Your task to perform on an android device: Open wifi settings Image 0: 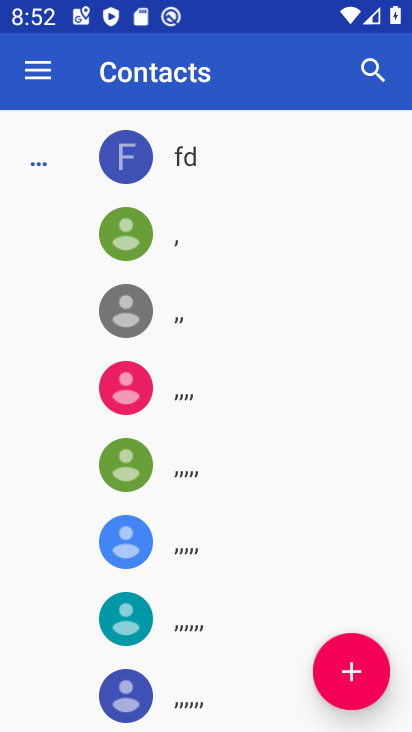
Step 0: press home button
Your task to perform on an android device: Open wifi settings Image 1: 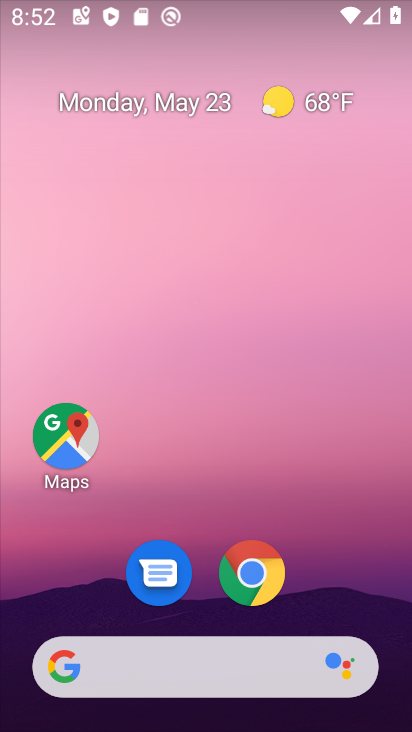
Step 1: drag from (324, 639) to (328, 196)
Your task to perform on an android device: Open wifi settings Image 2: 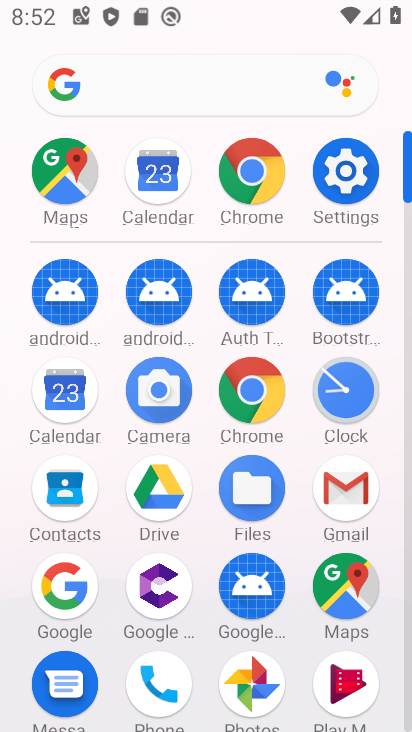
Step 2: click (343, 195)
Your task to perform on an android device: Open wifi settings Image 3: 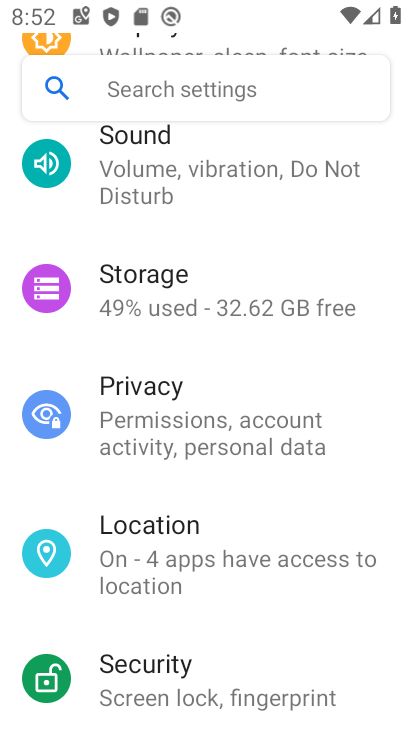
Step 3: drag from (310, 132) to (290, 427)
Your task to perform on an android device: Open wifi settings Image 4: 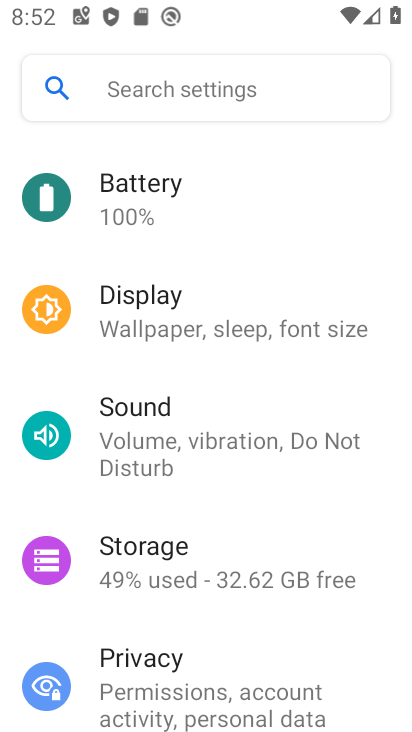
Step 4: drag from (332, 260) to (339, 467)
Your task to perform on an android device: Open wifi settings Image 5: 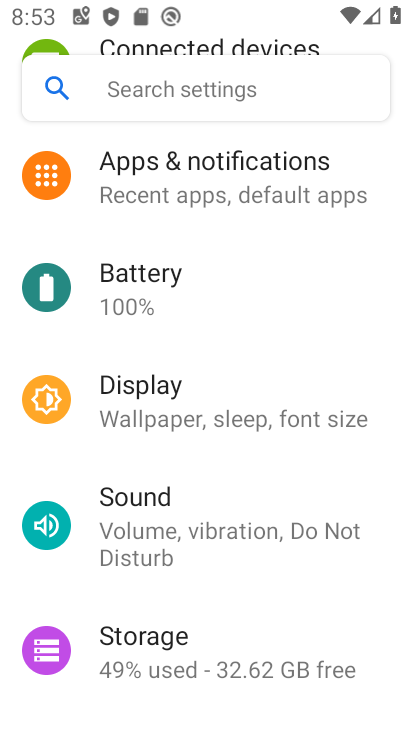
Step 5: drag from (287, 152) to (144, 717)
Your task to perform on an android device: Open wifi settings Image 6: 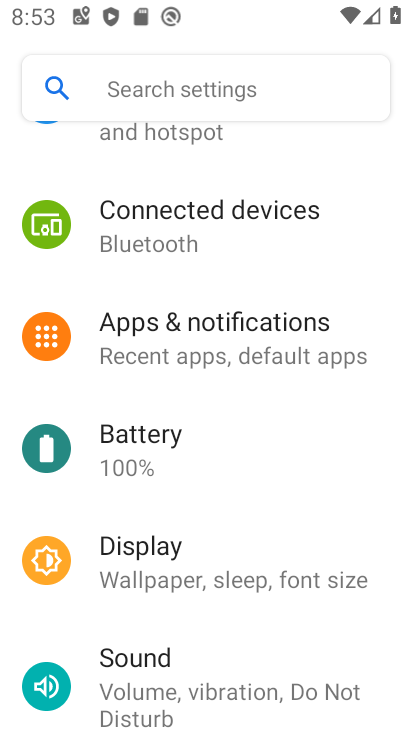
Step 6: drag from (293, 286) to (301, 466)
Your task to perform on an android device: Open wifi settings Image 7: 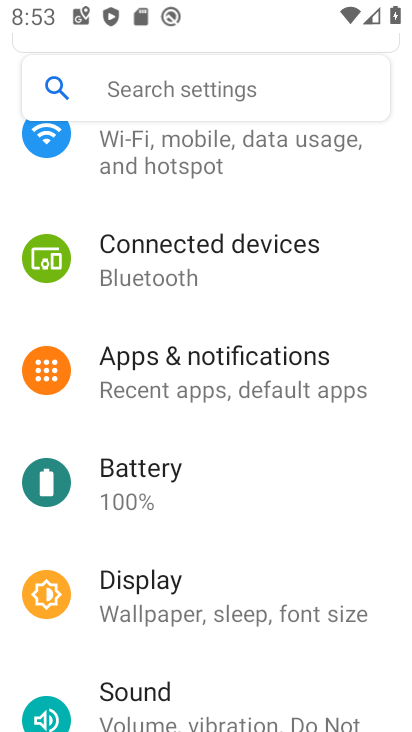
Step 7: drag from (360, 243) to (354, 443)
Your task to perform on an android device: Open wifi settings Image 8: 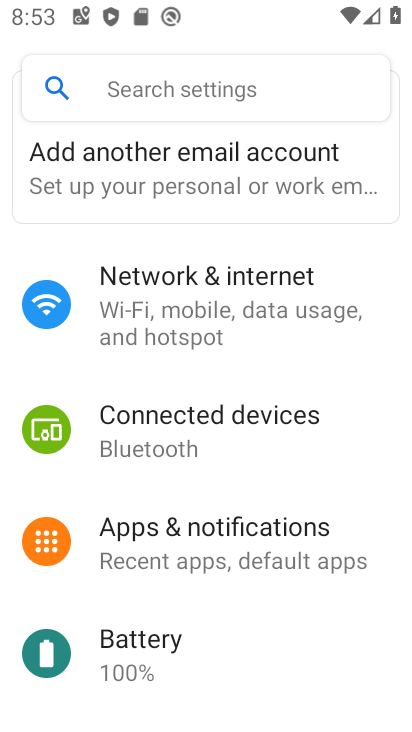
Step 8: click (218, 327)
Your task to perform on an android device: Open wifi settings Image 9: 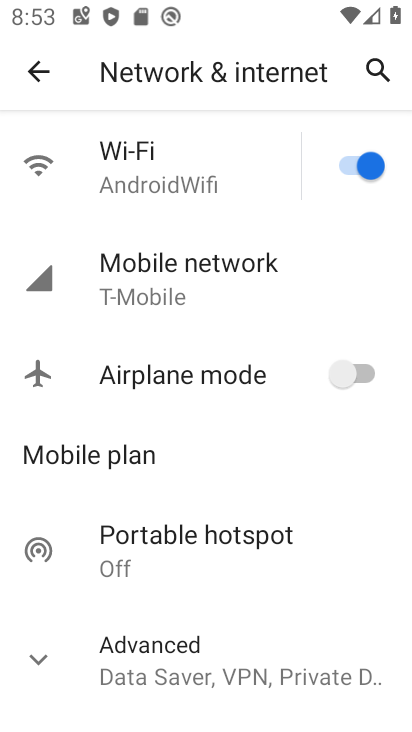
Step 9: click (184, 180)
Your task to perform on an android device: Open wifi settings Image 10: 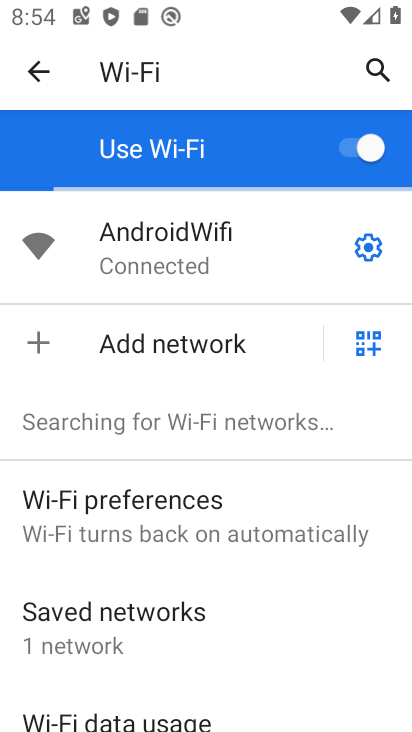
Step 10: task complete